Your task to perform on an android device: Show me popular games on the Play Store Image 0: 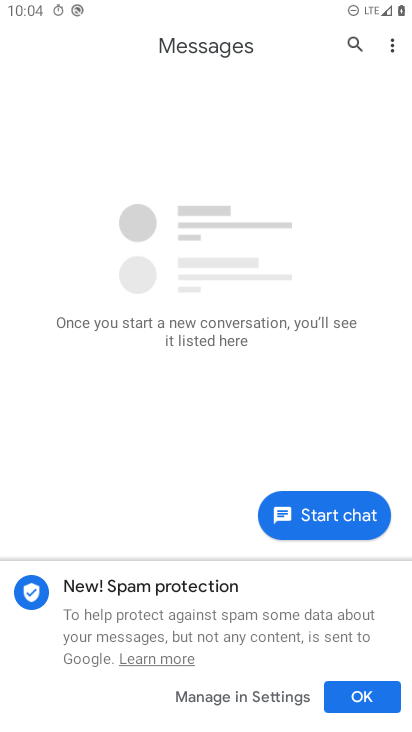
Step 0: press home button
Your task to perform on an android device: Show me popular games on the Play Store Image 1: 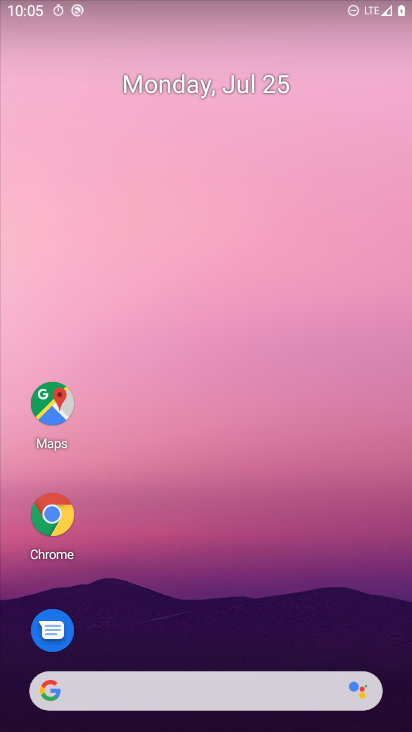
Step 1: drag from (12, 697) to (150, 206)
Your task to perform on an android device: Show me popular games on the Play Store Image 2: 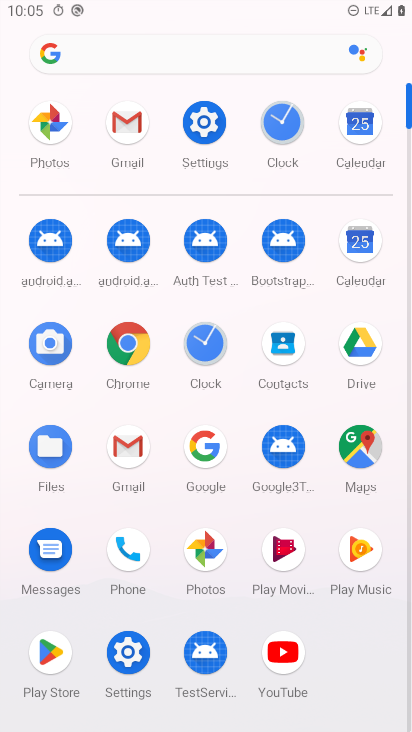
Step 2: click (54, 654)
Your task to perform on an android device: Show me popular games on the Play Store Image 3: 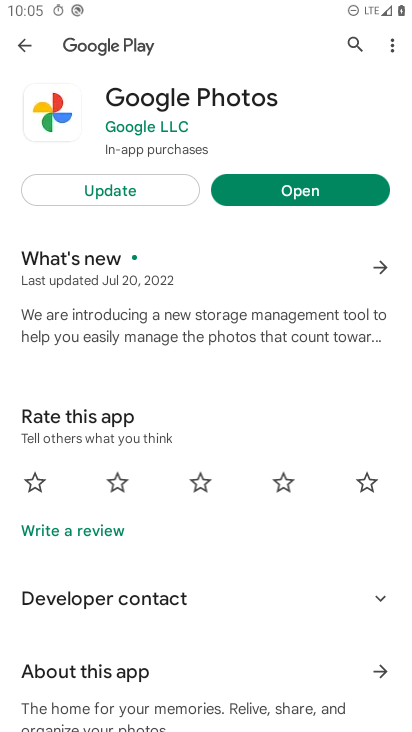
Step 3: click (258, 187)
Your task to perform on an android device: Show me popular games on the Play Store Image 4: 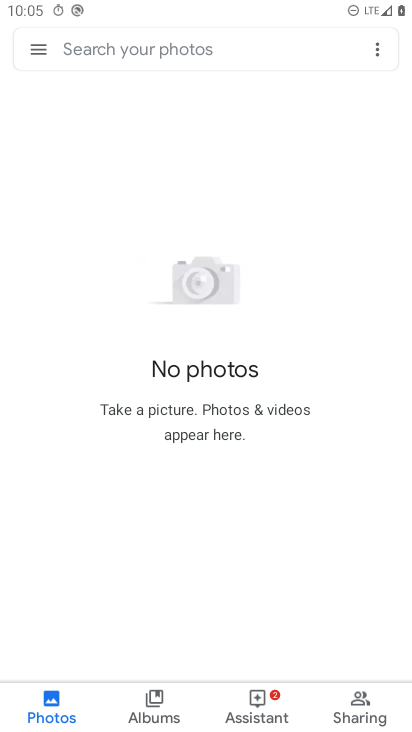
Step 4: press home button
Your task to perform on an android device: Show me popular games on the Play Store Image 5: 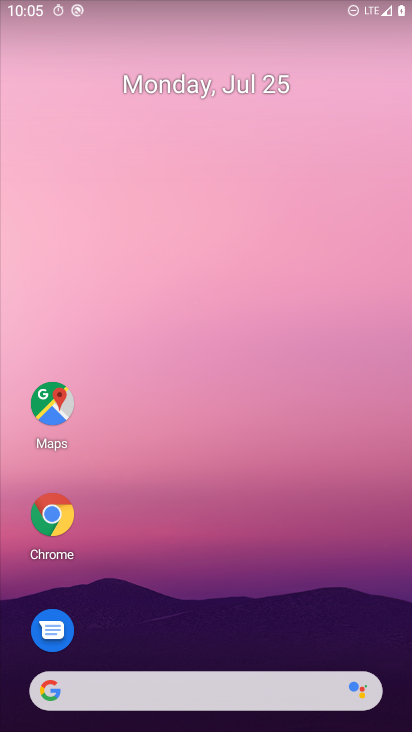
Step 5: drag from (57, 620) to (209, 168)
Your task to perform on an android device: Show me popular games on the Play Store Image 6: 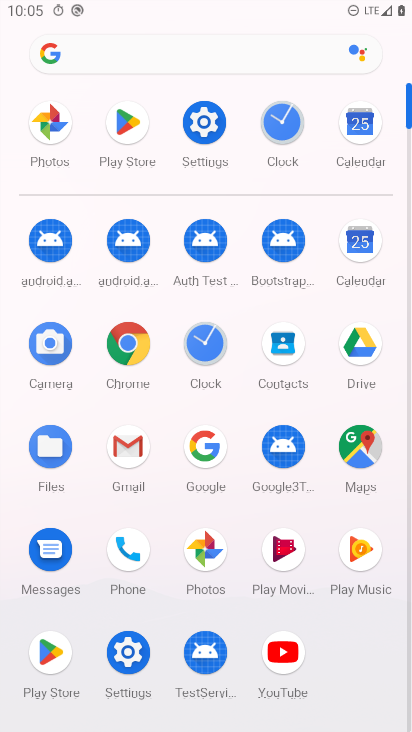
Step 6: click (37, 666)
Your task to perform on an android device: Show me popular games on the Play Store Image 7: 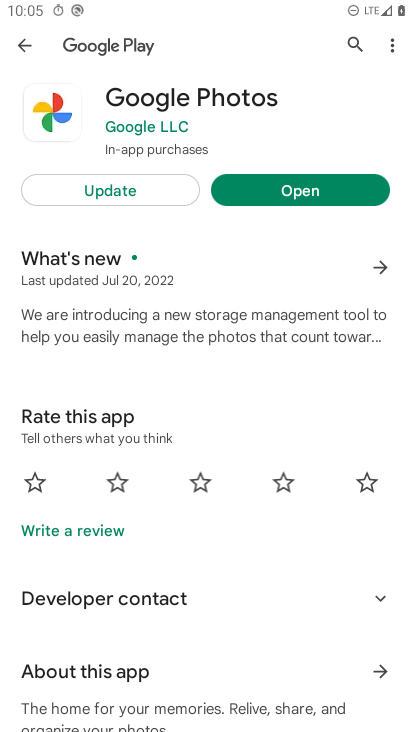
Step 7: click (27, 32)
Your task to perform on an android device: Show me popular games on the Play Store Image 8: 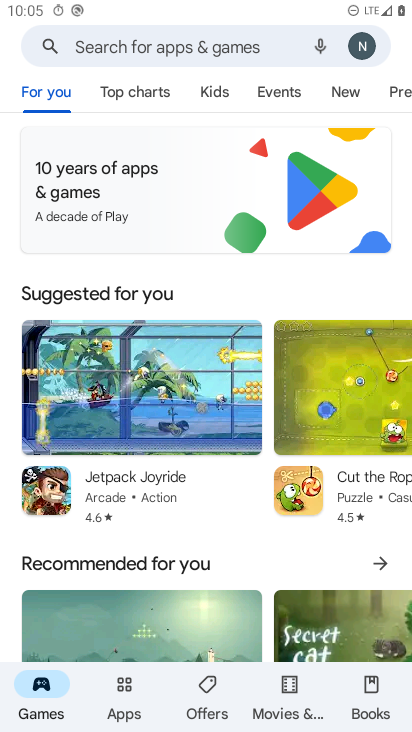
Step 8: click (122, 49)
Your task to perform on an android device: Show me popular games on the Play Store Image 9: 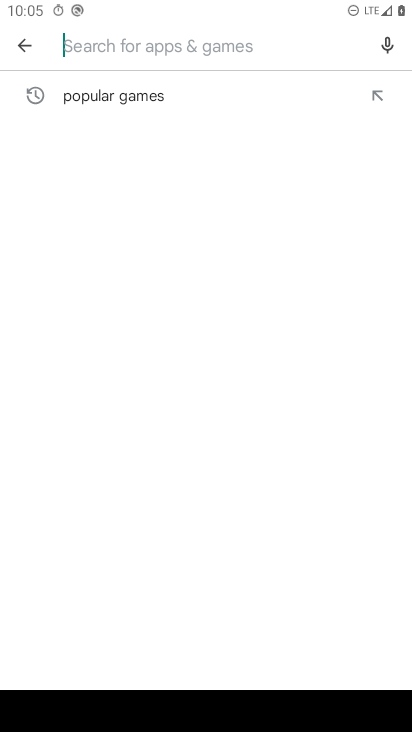
Step 9: click (129, 100)
Your task to perform on an android device: Show me popular games on the Play Store Image 10: 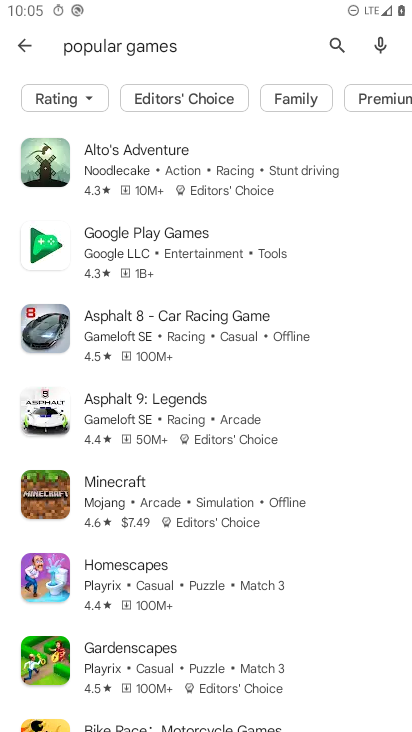
Step 10: task complete